Your task to perform on an android device: Add macbook air to the cart on newegg.com, then select checkout. Image 0: 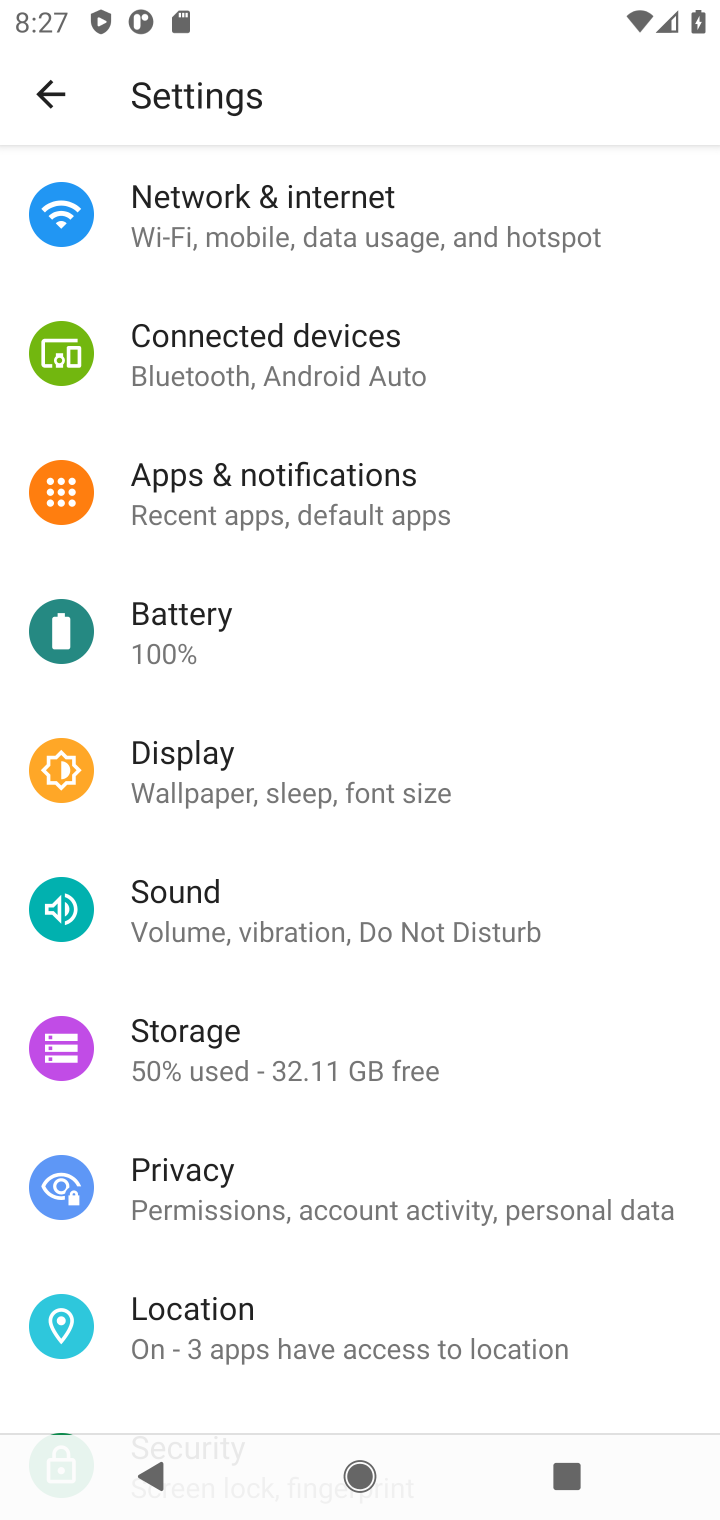
Step 0: press home button
Your task to perform on an android device: Add macbook air to the cart on newegg.com, then select checkout. Image 1: 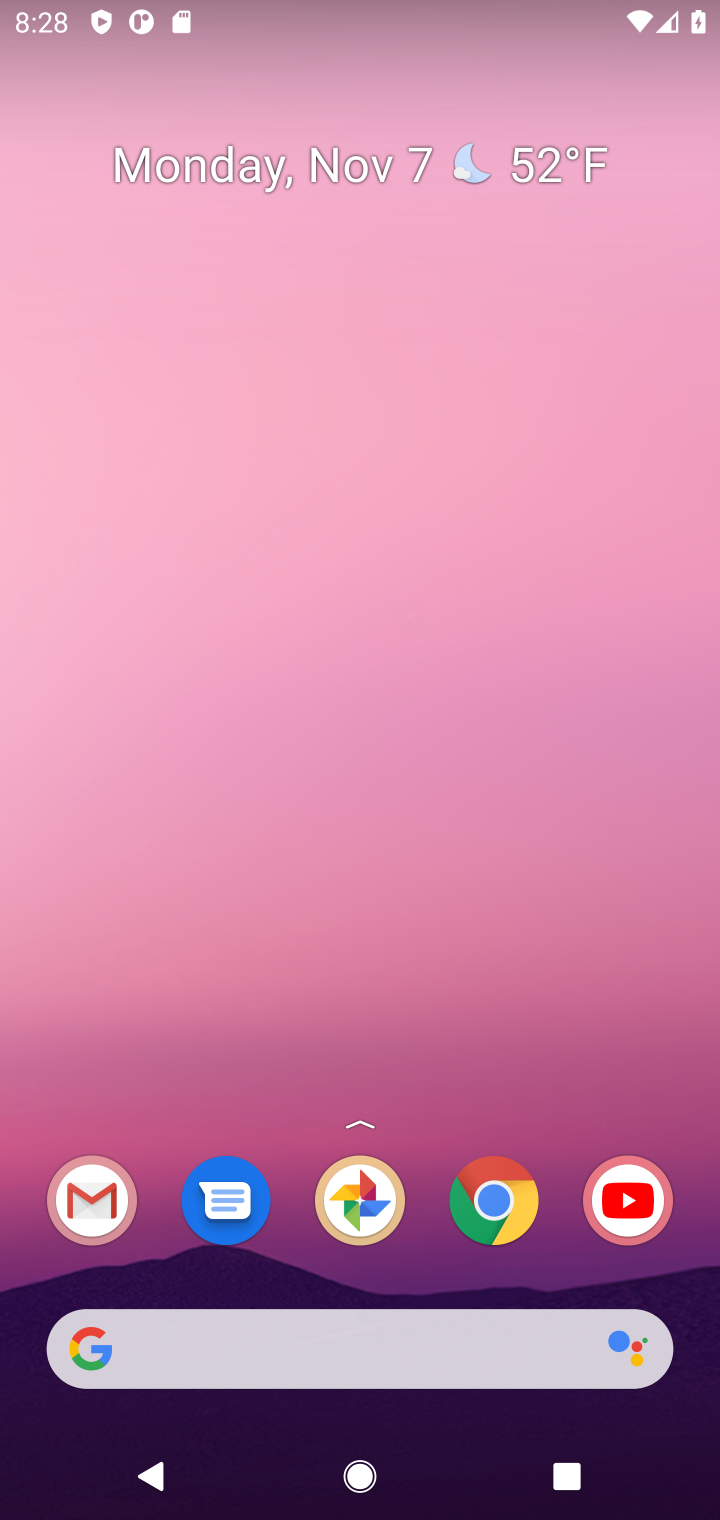
Step 1: click (501, 1217)
Your task to perform on an android device: Add macbook air to the cart on newegg.com, then select checkout. Image 2: 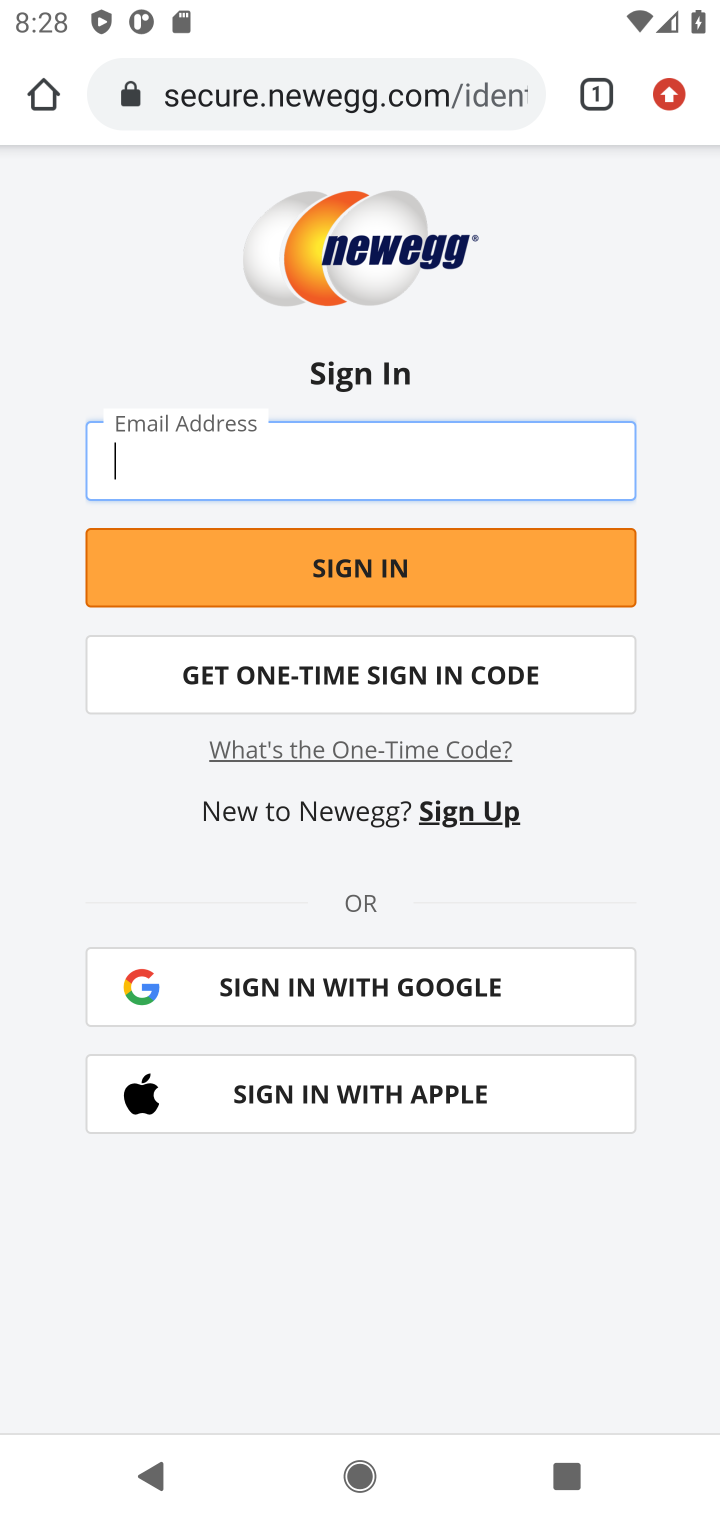
Step 2: click (261, 106)
Your task to perform on an android device: Add macbook air to the cart on newegg.com, then select checkout. Image 3: 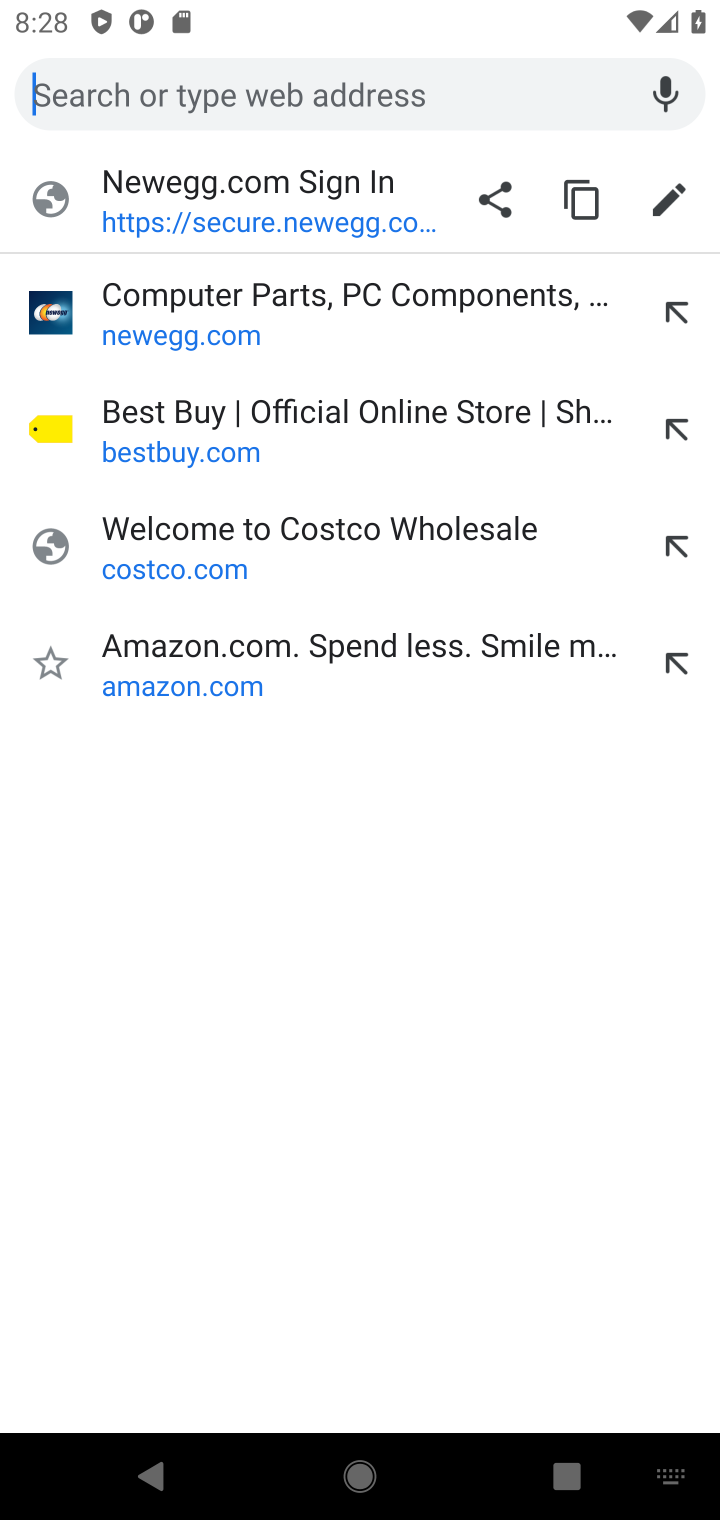
Step 3: type "newegg.com"
Your task to perform on an android device: Add macbook air to the cart on newegg.com, then select checkout. Image 4: 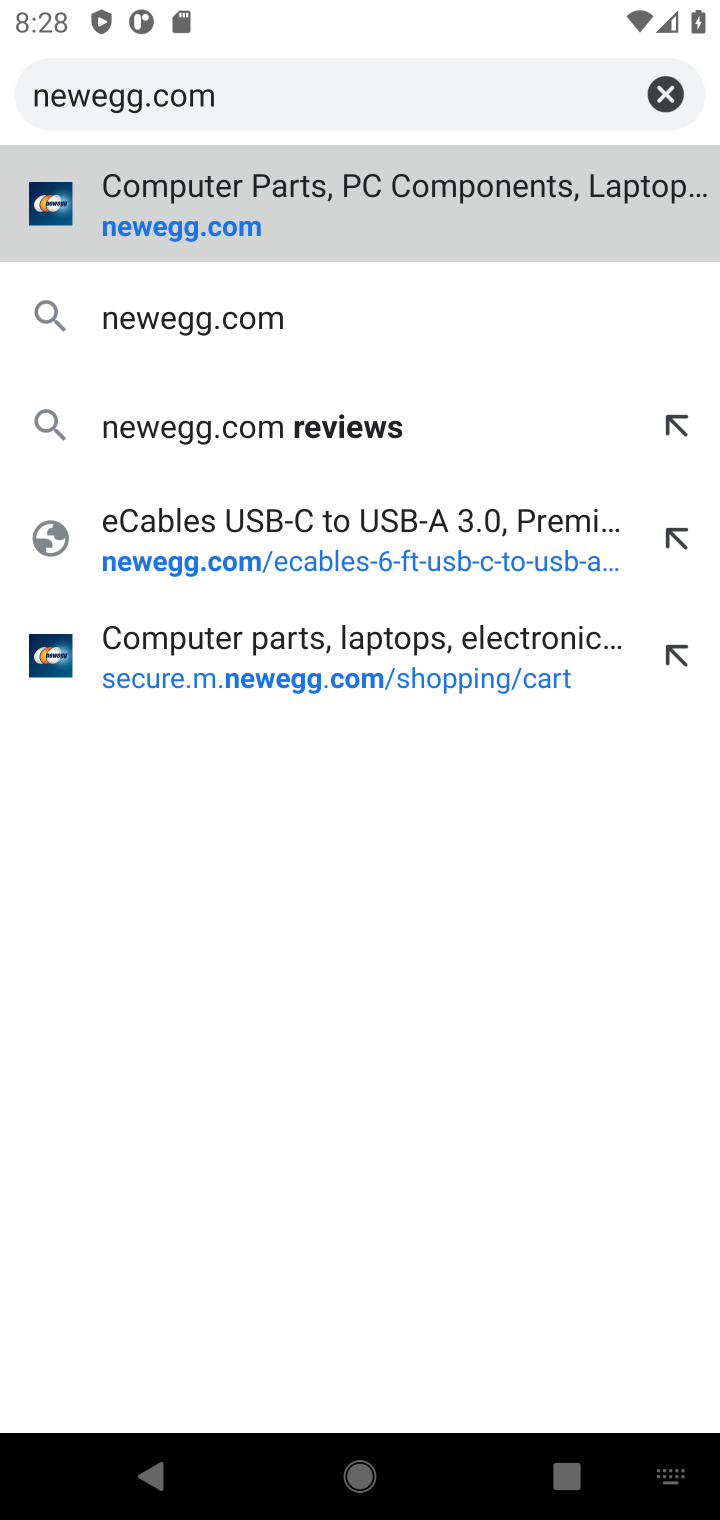
Step 4: press enter
Your task to perform on an android device: Add macbook air to the cart on newegg.com, then select checkout. Image 5: 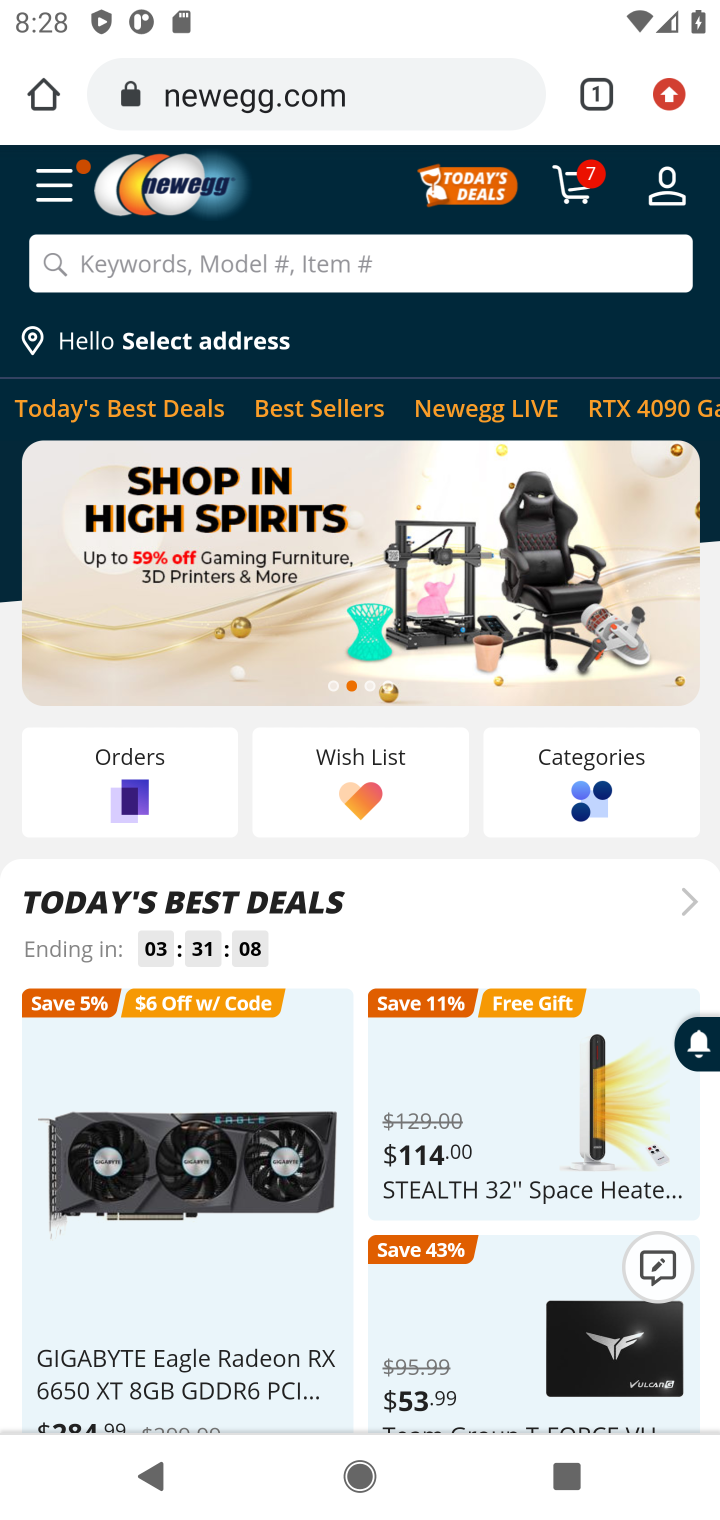
Step 5: click (293, 267)
Your task to perform on an android device: Add macbook air to the cart on newegg.com, then select checkout. Image 6: 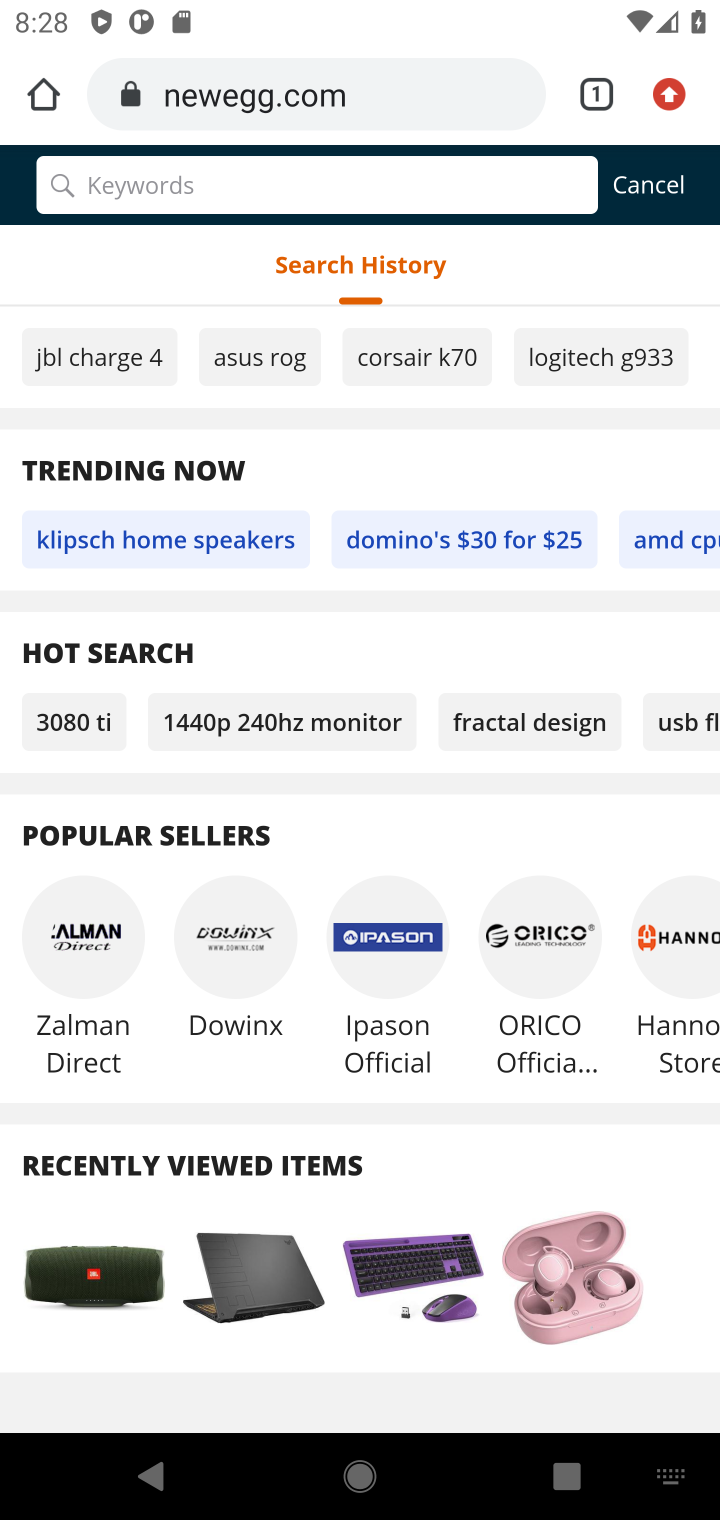
Step 6: type "macbook air"
Your task to perform on an android device: Add macbook air to the cart on newegg.com, then select checkout. Image 7: 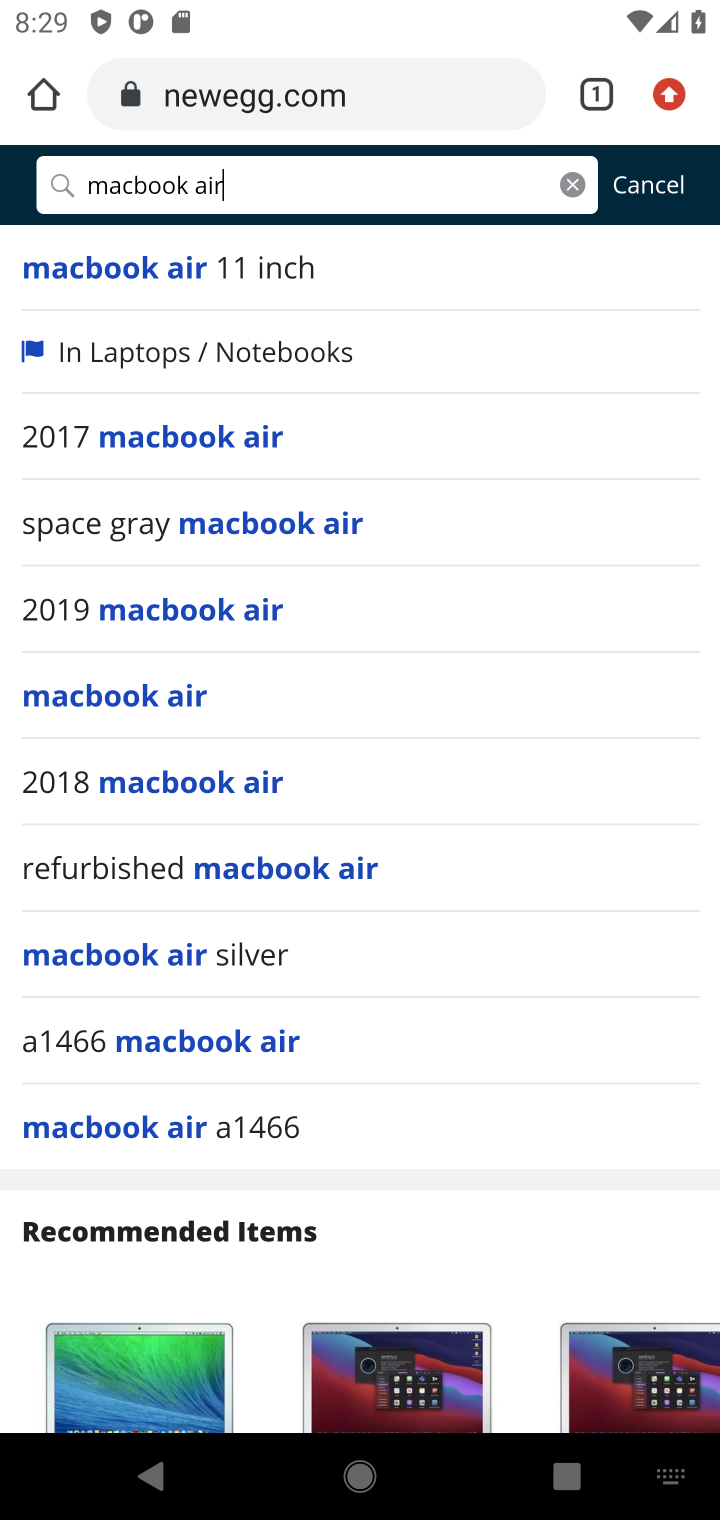
Step 7: press enter
Your task to perform on an android device: Add macbook air to the cart on newegg.com, then select checkout. Image 8: 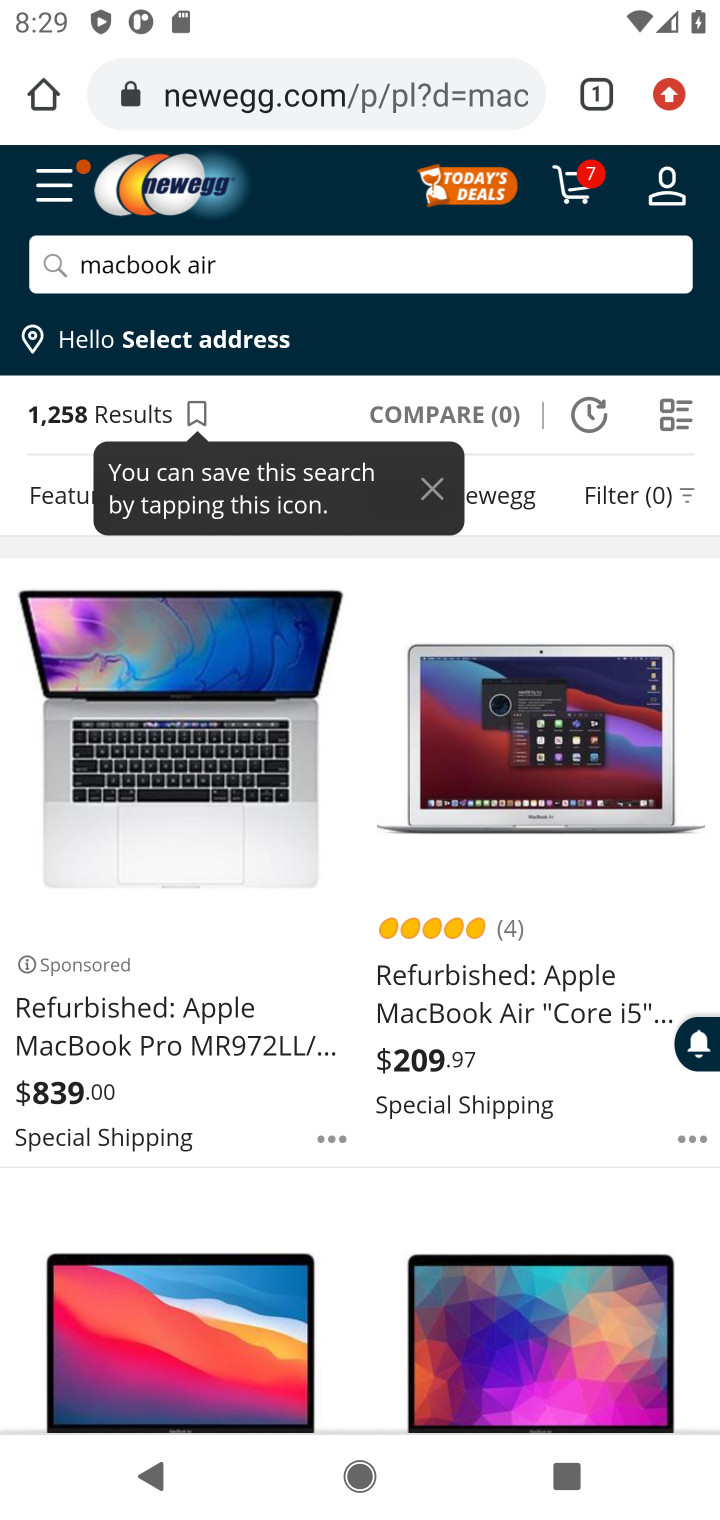
Step 8: click (193, 859)
Your task to perform on an android device: Add macbook air to the cart on newegg.com, then select checkout. Image 9: 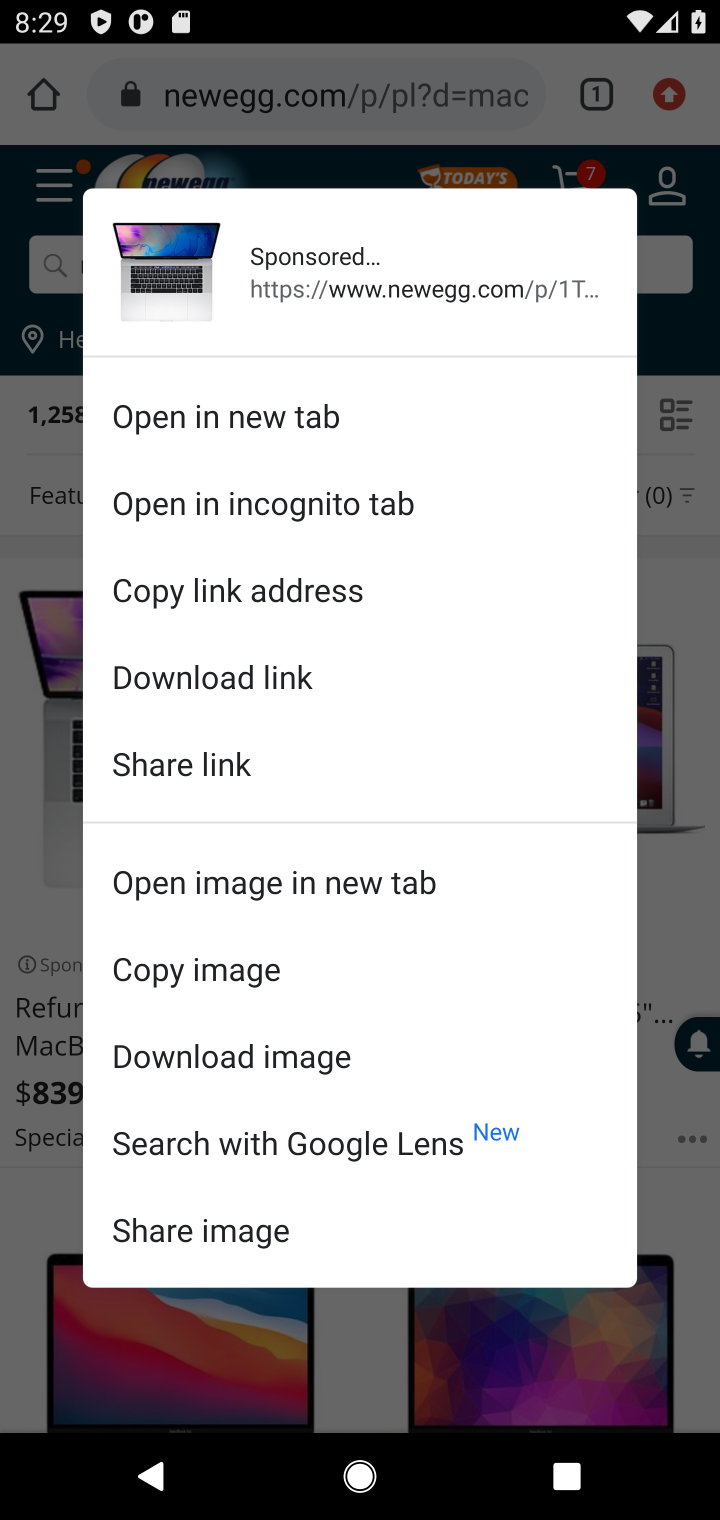
Step 9: click (188, 1361)
Your task to perform on an android device: Add macbook air to the cart on newegg.com, then select checkout. Image 10: 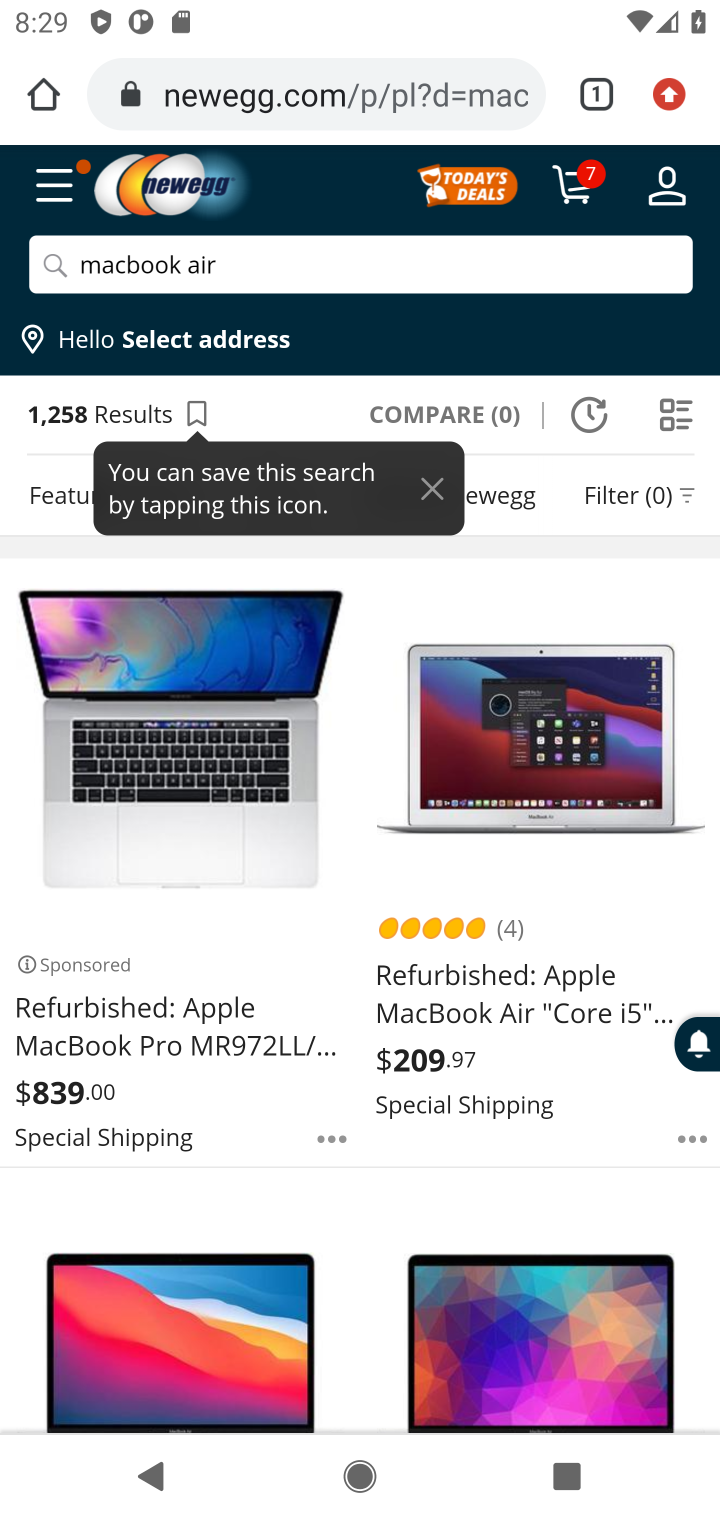
Step 10: click (178, 800)
Your task to perform on an android device: Add macbook air to the cart on newegg.com, then select checkout. Image 11: 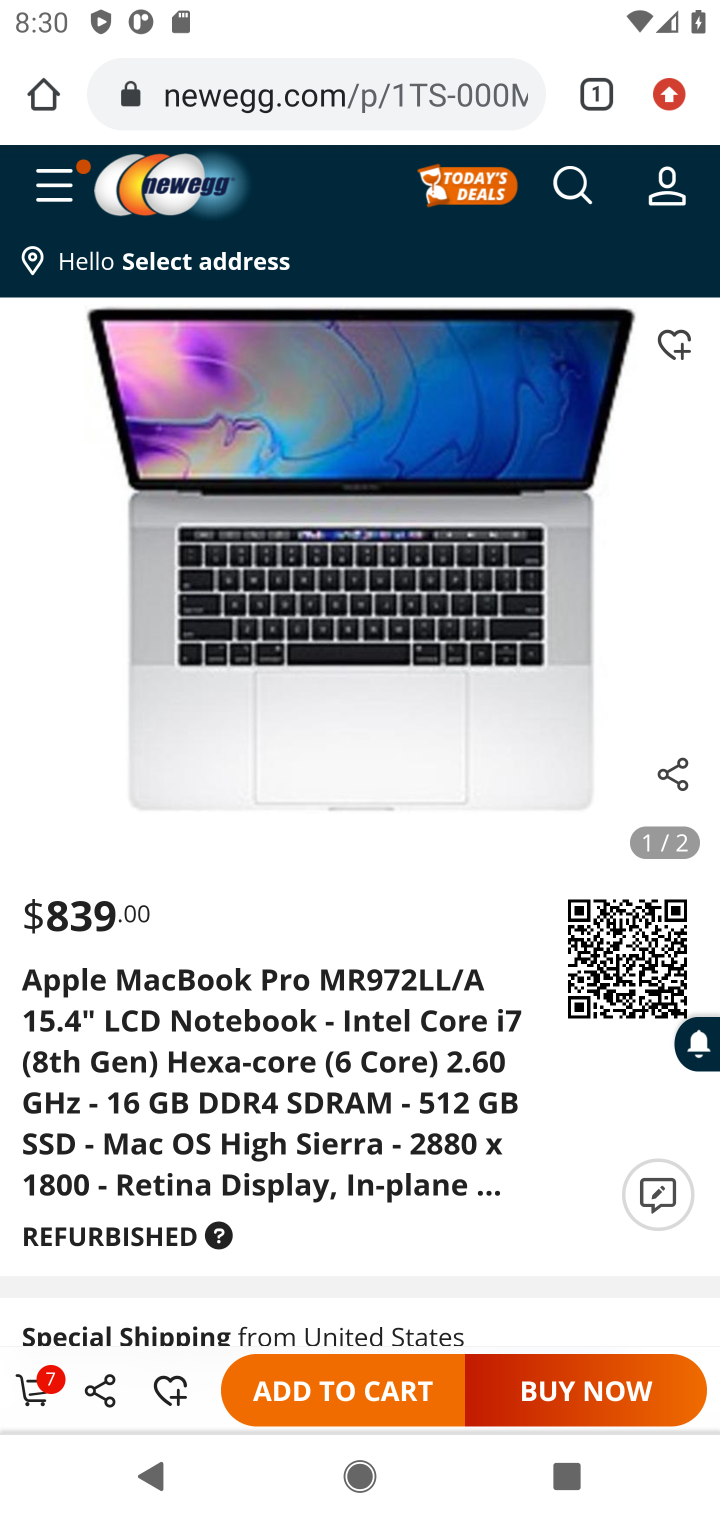
Step 11: click (350, 1396)
Your task to perform on an android device: Add macbook air to the cart on newegg.com, then select checkout. Image 12: 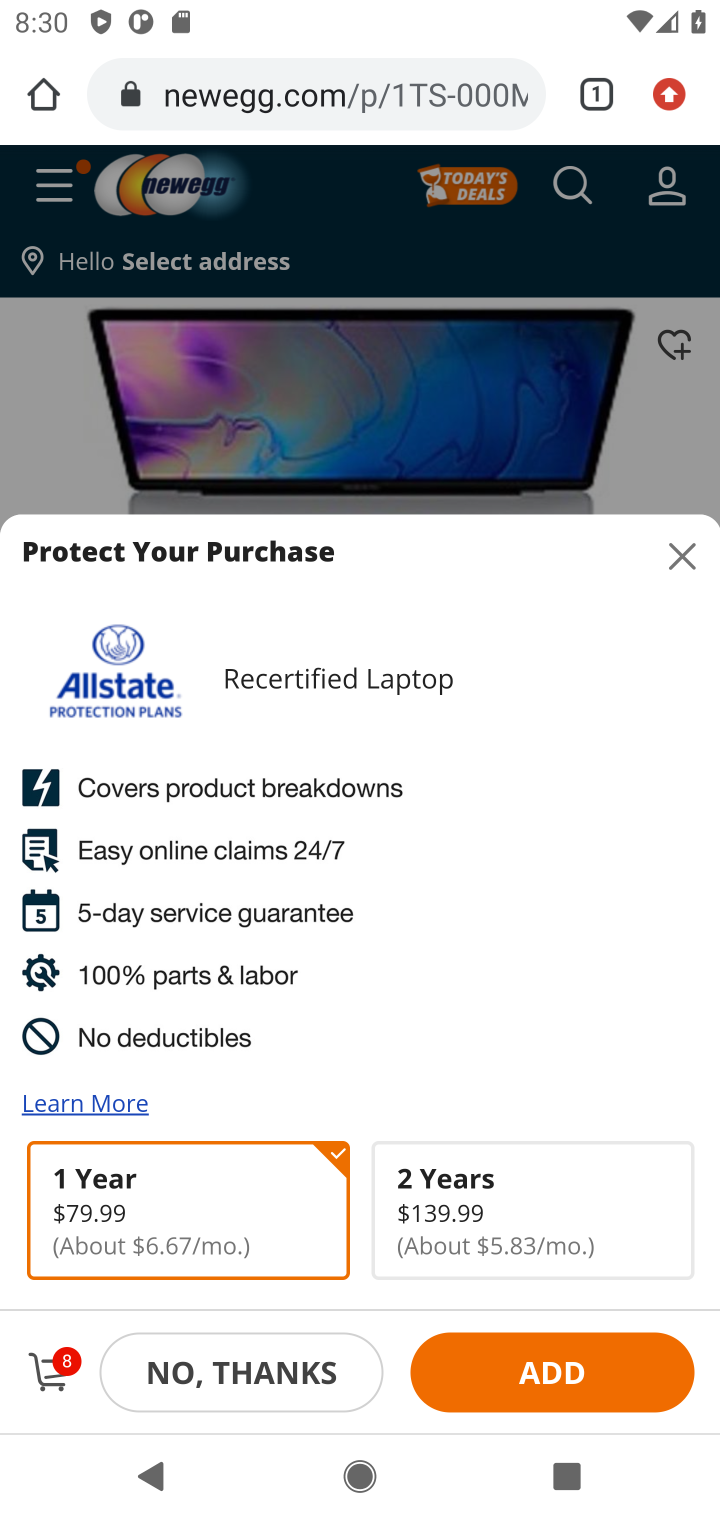
Step 12: click (525, 1386)
Your task to perform on an android device: Add macbook air to the cart on newegg.com, then select checkout. Image 13: 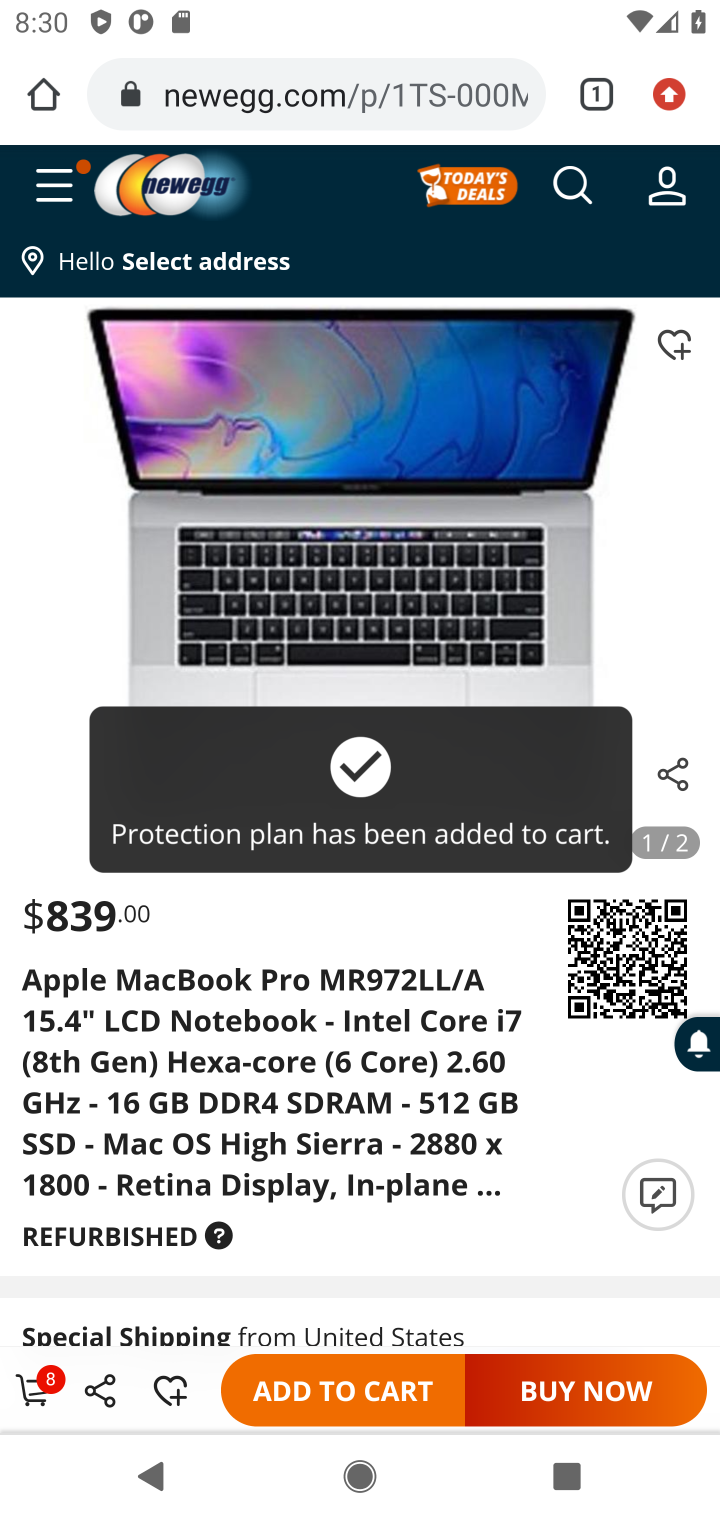
Step 13: click (75, 199)
Your task to perform on an android device: Add macbook air to the cart on newegg.com, then select checkout. Image 14: 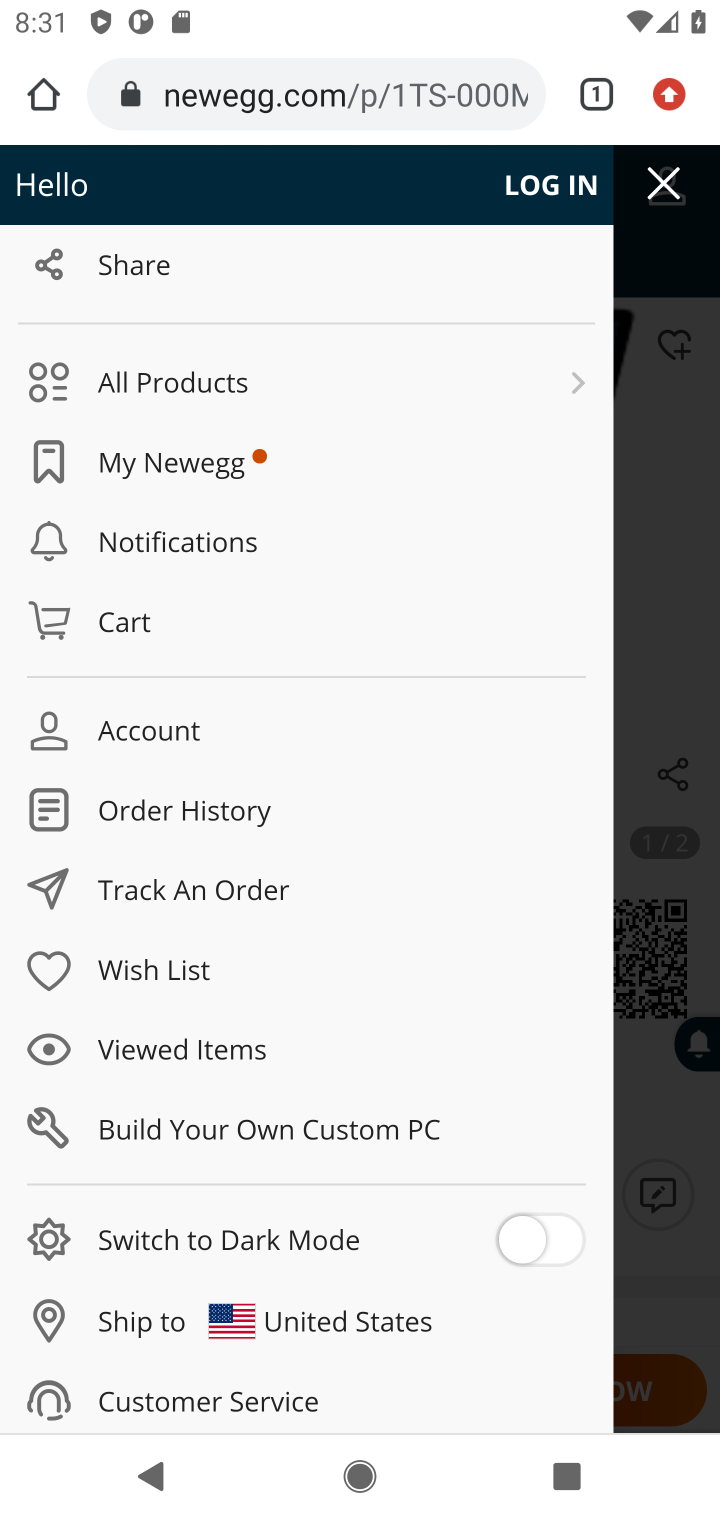
Step 14: click (106, 635)
Your task to perform on an android device: Add macbook air to the cart on newegg.com, then select checkout. Image 15: 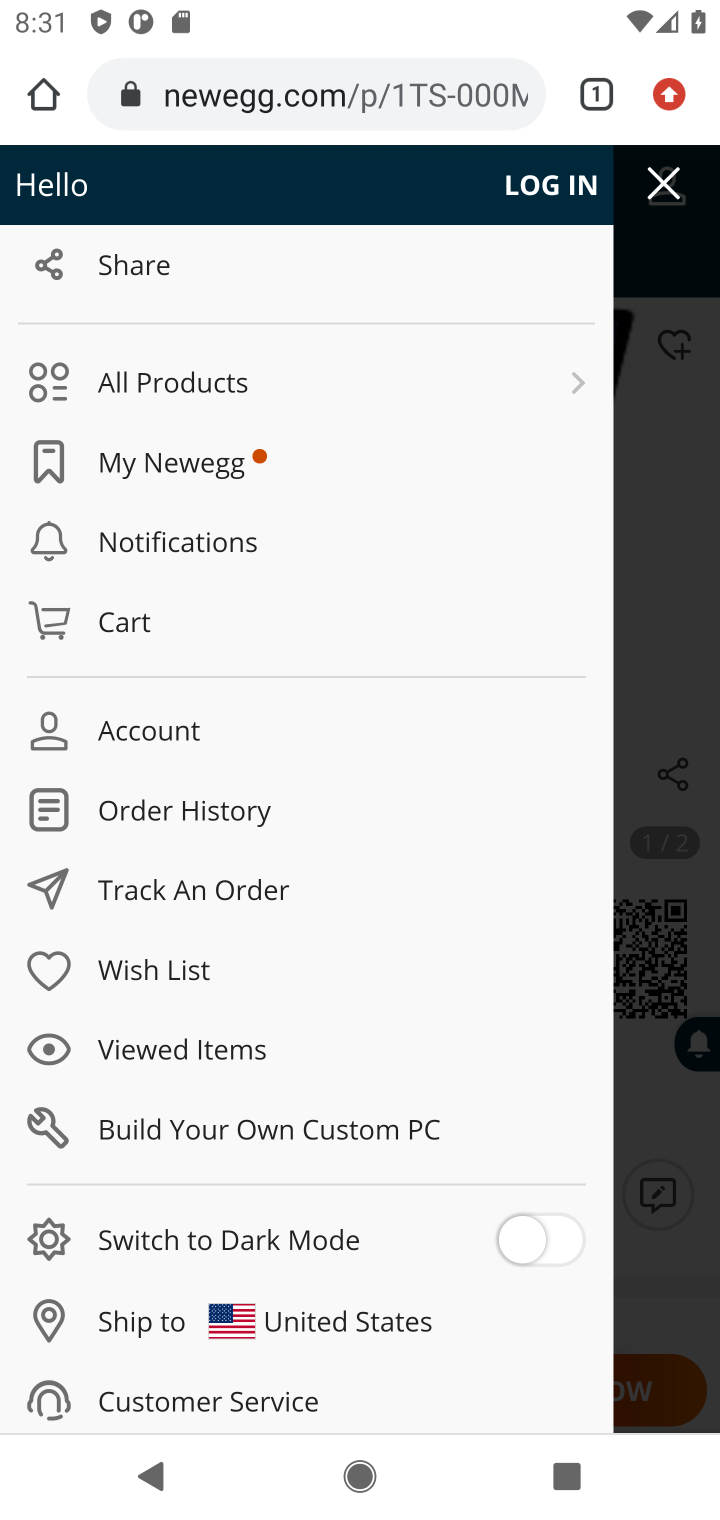
Step 15: click (105, 634)
Your task to perform on an android device: Add macbook air to the cart on newegg.com, then select checkout. Image 16: 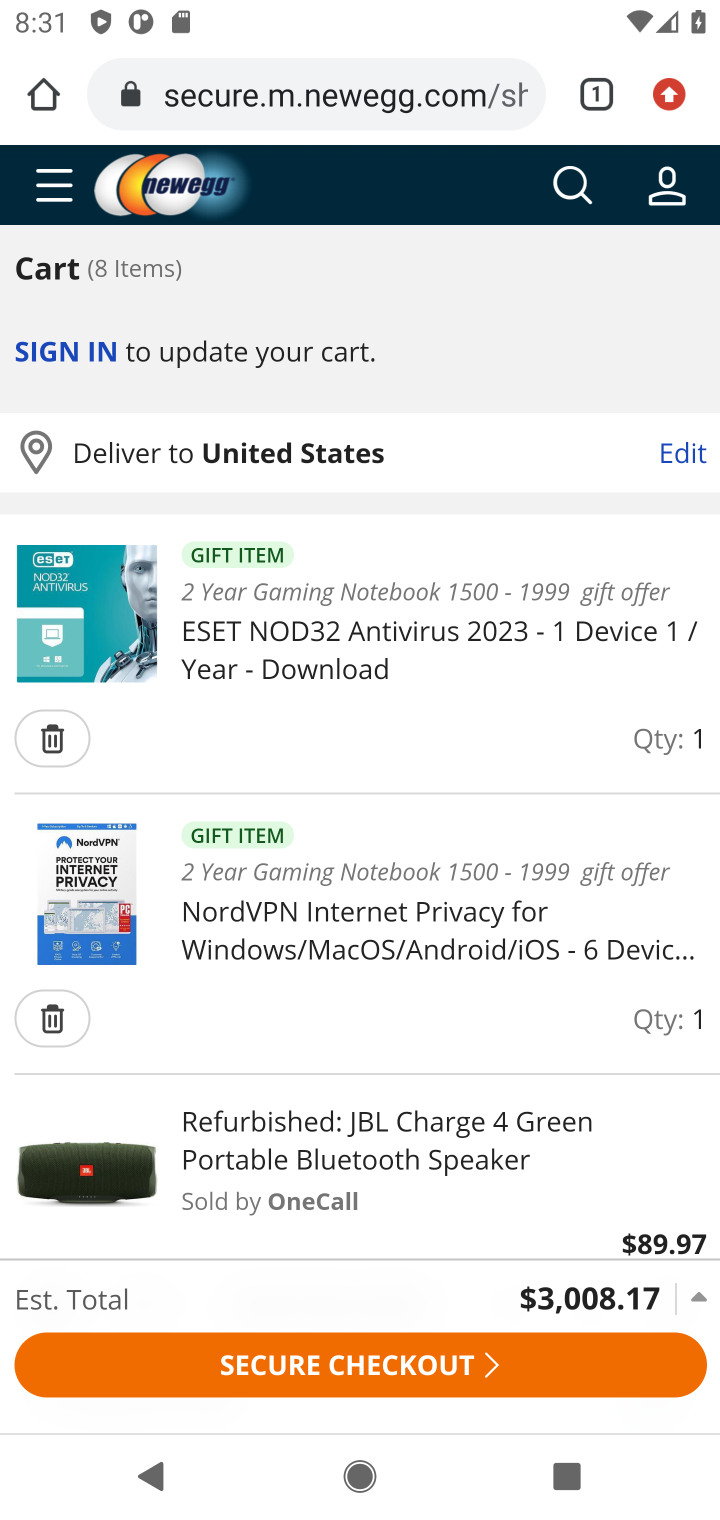
Step 16: click (342, 1355)
Your task to perform on an android device: Add macbook air to the cart on newegg.com, then select checkout. Image 17: 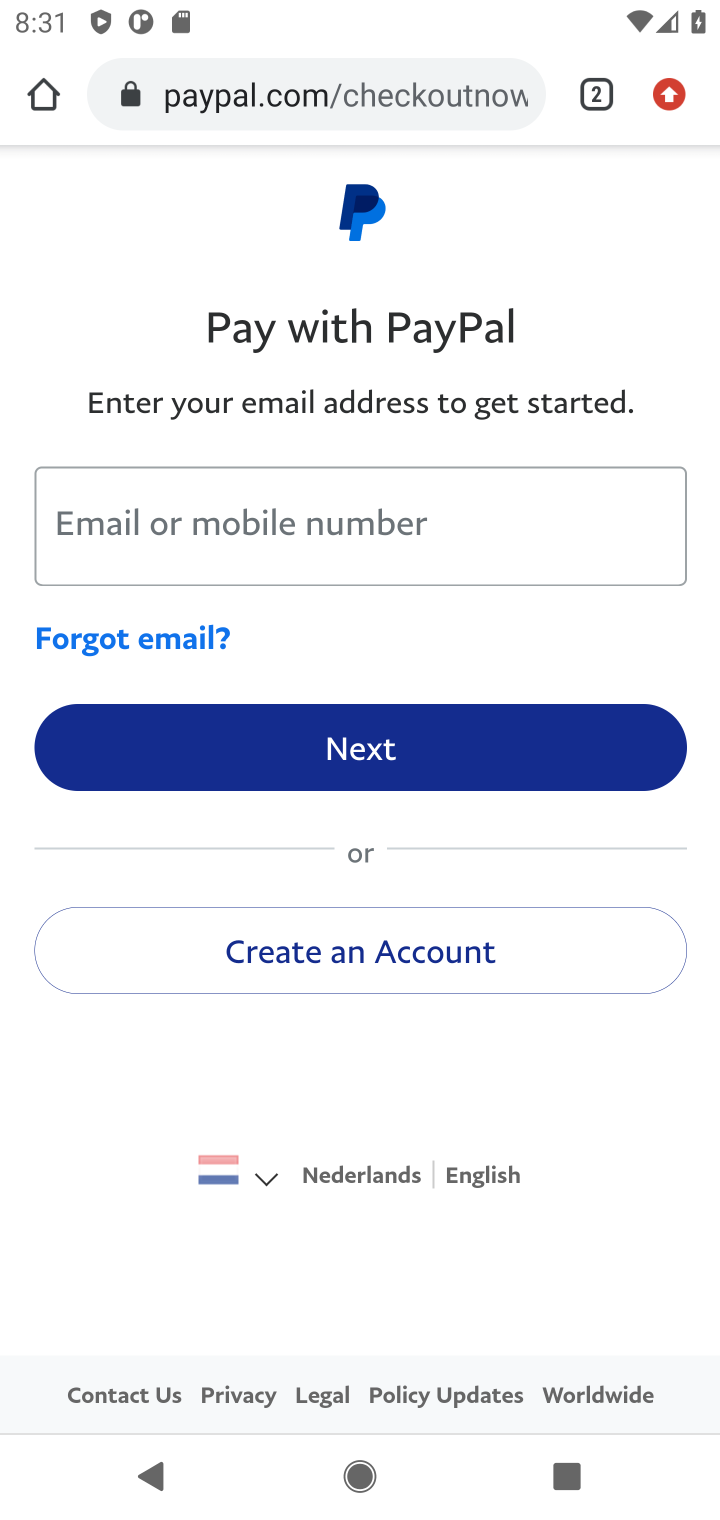
Step 17: task complete